Your task to perform on an android device: Clear the shopping cart on walmart. Search for logitech g910 on walmart, select the first entry, add it to the cart, then select checkout. Image 0: 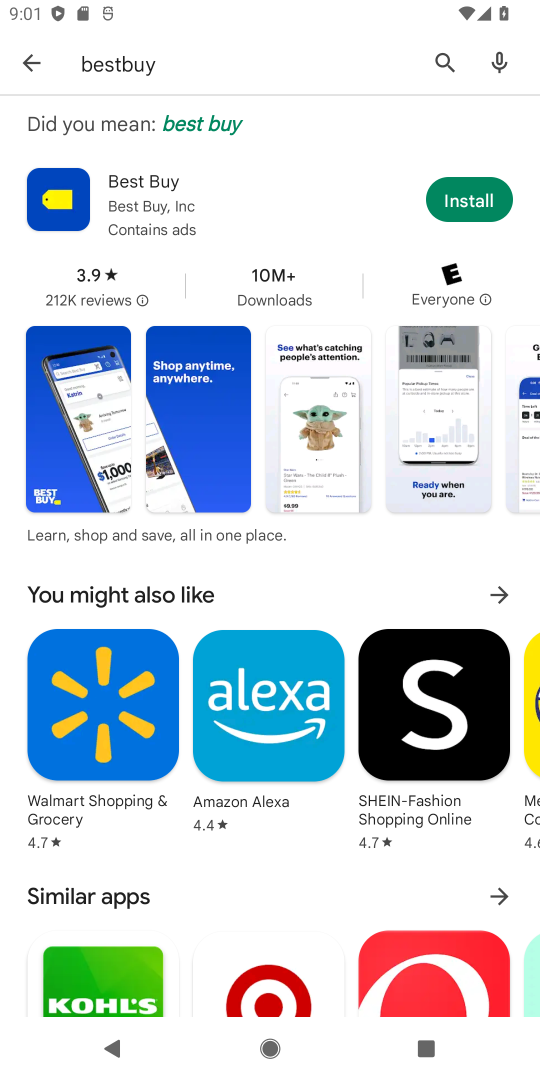
Step 0: press home button
Your task to perform on an android device: Clear the shopping cart on walmart. Search for logitech g910 on walmart, select the first entry, add it to the cart, then select checkout. Image 1: 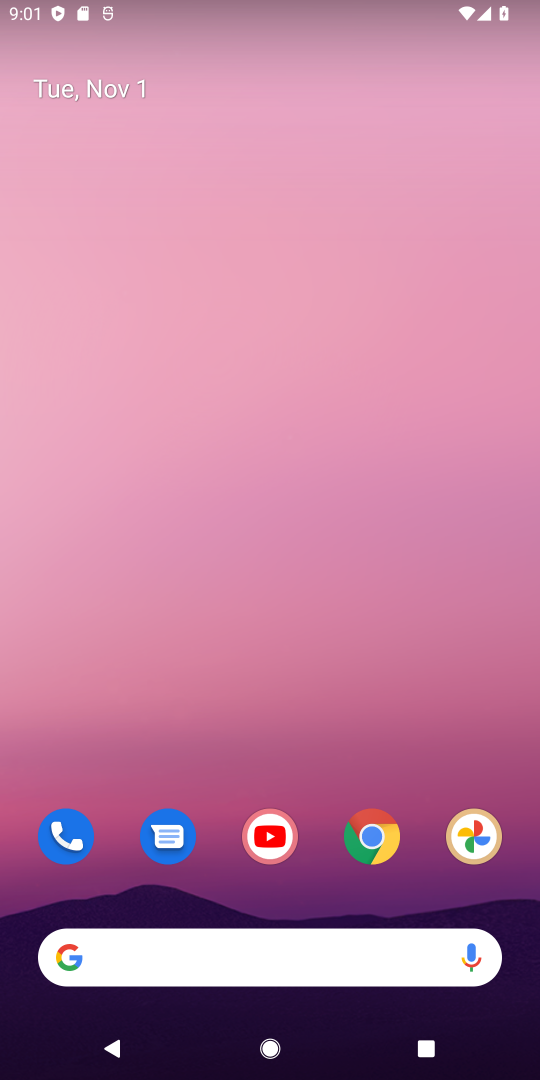
Step 1: click (376, 819)
Your task to perform on an android device: Clear the shopping cart on walmart. Search for logitech g910 on walmart, select the first entry, add it to the cart, then select checkout. Image 2: 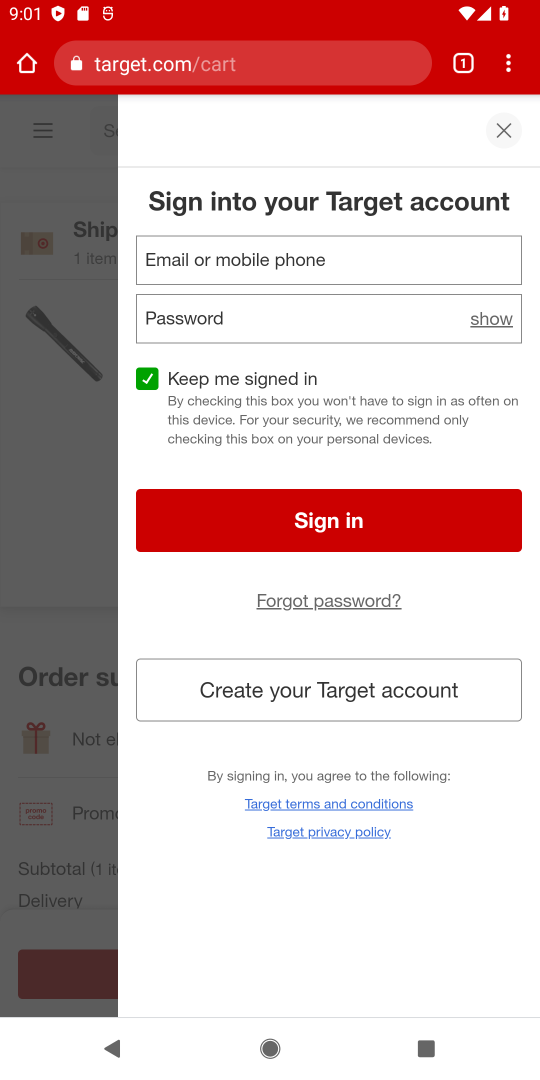
Step 2: click (228, 52)
Your task to perform on an android device: Clear the shopping cart on walmart. Search for logitech g910 on walmart, select the first entry, add it to the cart, then select checkout. Image 3: 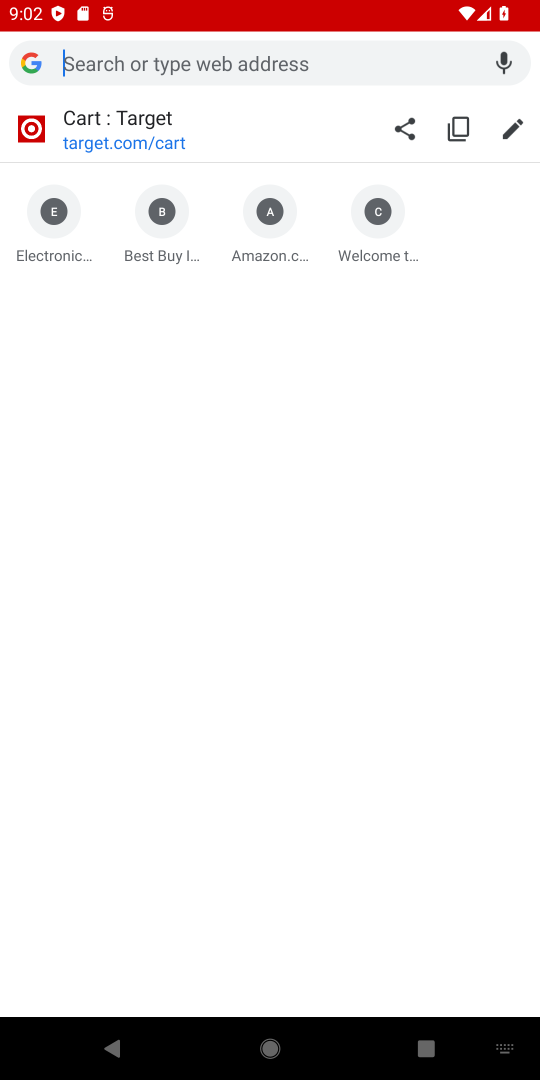
Step 3: type "walmart"
Your task to perform on an android device: Clear the shopping cart on walmart. Search for logitech g910 on walmart, select the first entry, add it to the cart, then select checkout. Image 4: 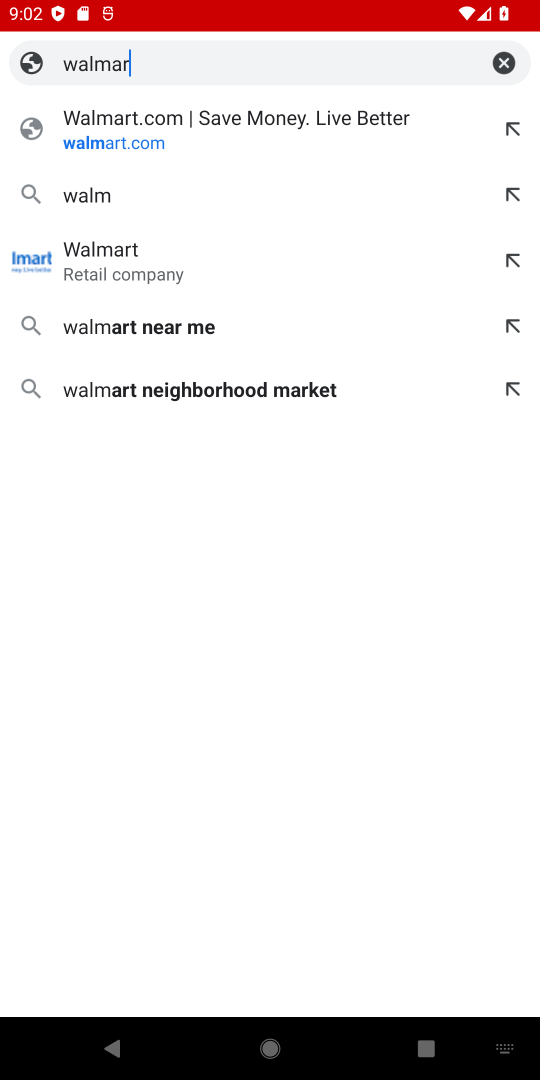
Step 4: type ""
Your task to perform on an android device: Clear the shopping cart on walmart. Search for logitech g910 on walmart, select the first entry, add it to the cart, then select checkout. Image 5: 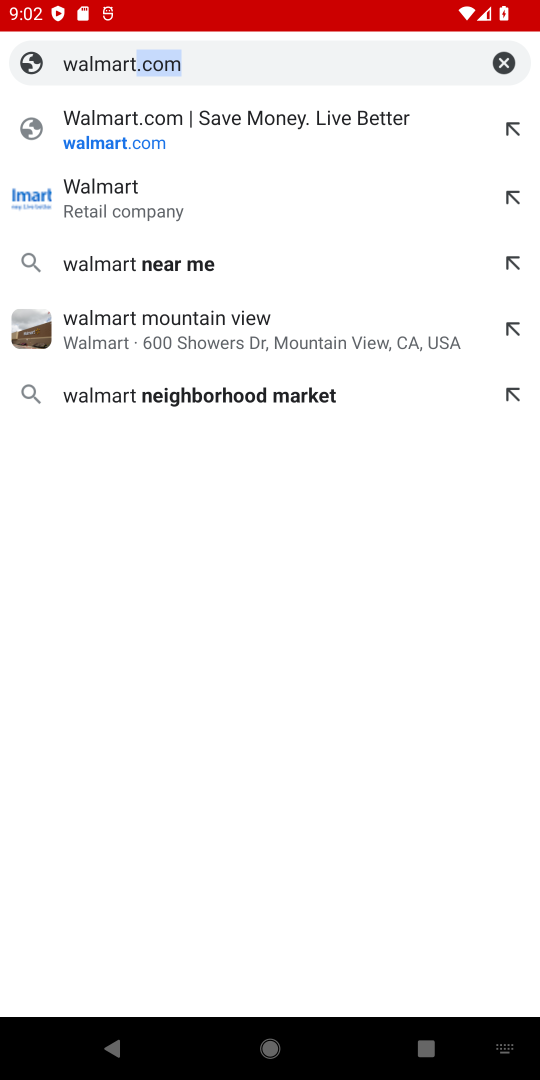
Step 5: press enter
Your task to perform on an android device: Clear the shopping cart on walmart. Search for logitech g910 on walmart, select the first entry, add it to the cart, then select checkout. Image 6: 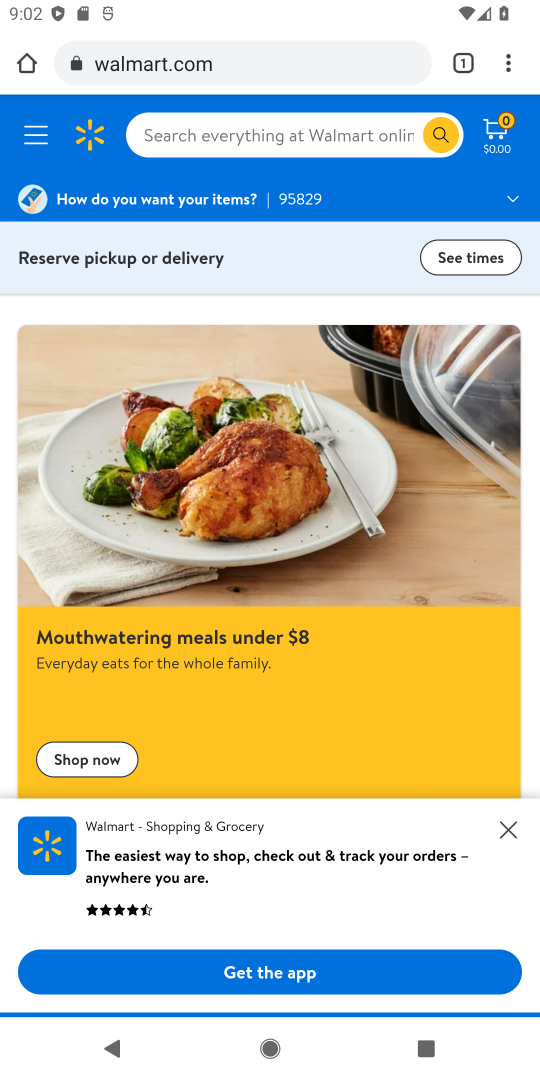
Step 6: click (223, 136)
Your task to perform on an android device: Clear the shopping cart on walmart. Search for logitech g910 on walmart, select the first entry, add it to the cart, then select checkout. Image 7: 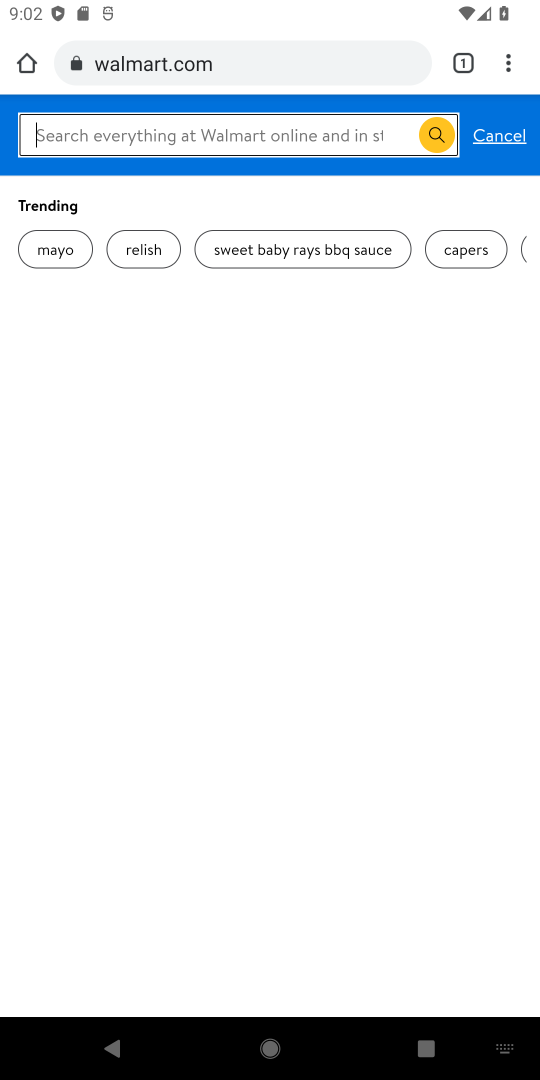
Step 7: type "ogitech g910"
Your task to perform on an android device: Clear the shopping cart on walmart. Search for logitech g910 on walmart, select the first entry, add it to the cart, then select checkout. Image 8: 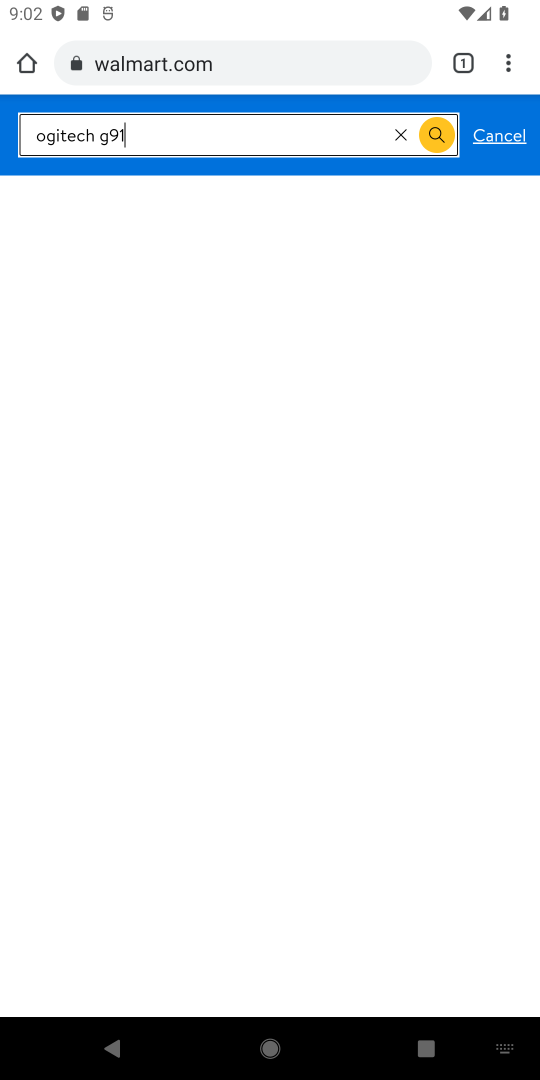
Step 8: type ""
Your task to perform on an android device: Clear the shopping cart on walmart. Search for logitech g910 on walmart, select the first entry, add it to the cart, then select checkout. Image 9: 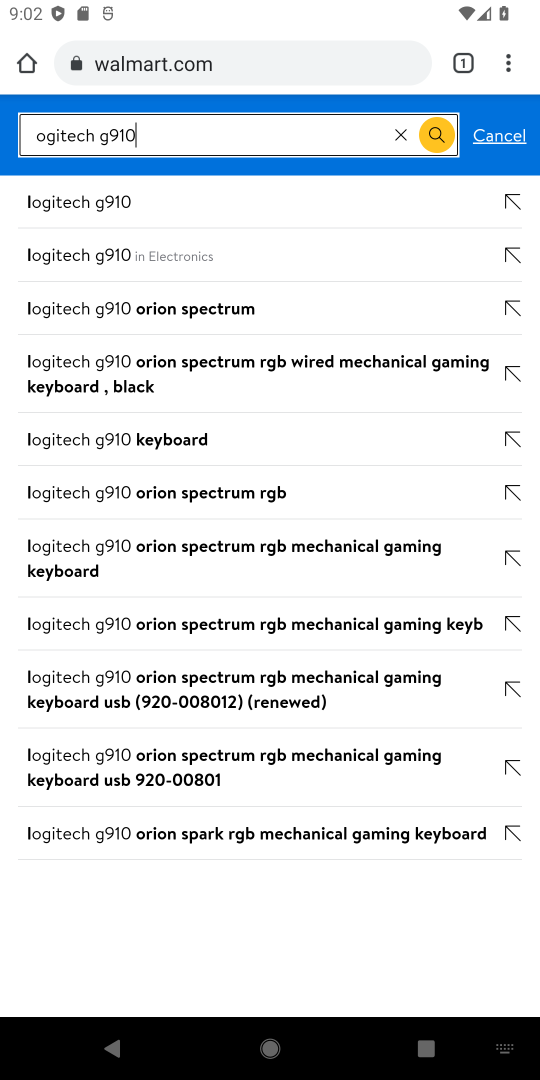
Step 9: click (96, 207)
Your task to perform on an android device: Clear the shopping cart on walmart. Search for logitech g910 on walmart, select the first entry, add it to the cart, then select checkout. Image 10: 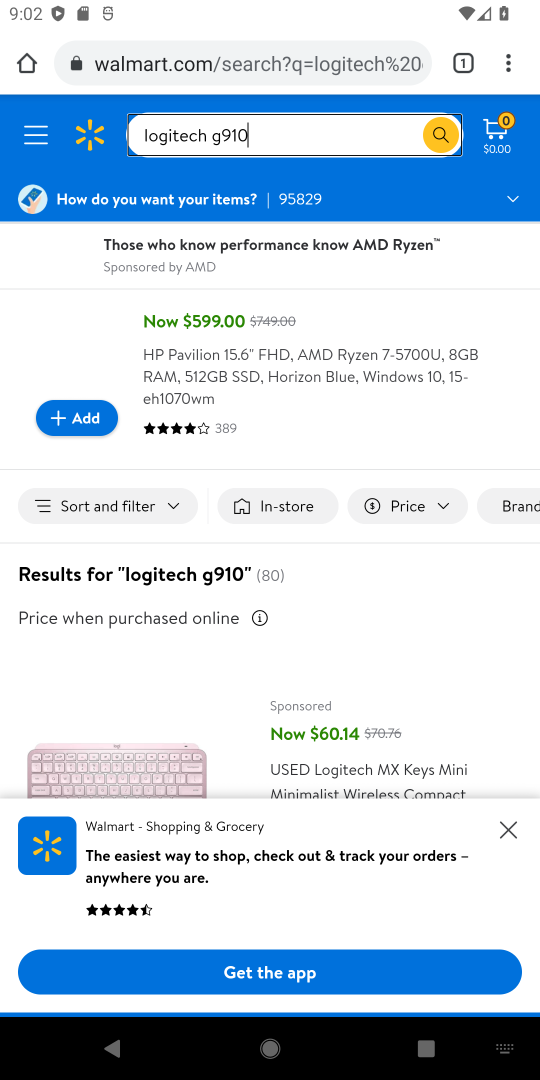
Step 10: click (511, 830)
Your task to perform on an android device: Clear the shopping cart on walmart. Search for logitech g910 on walmart, select the first entry, add it to the cart, then select checkout. Image 11: 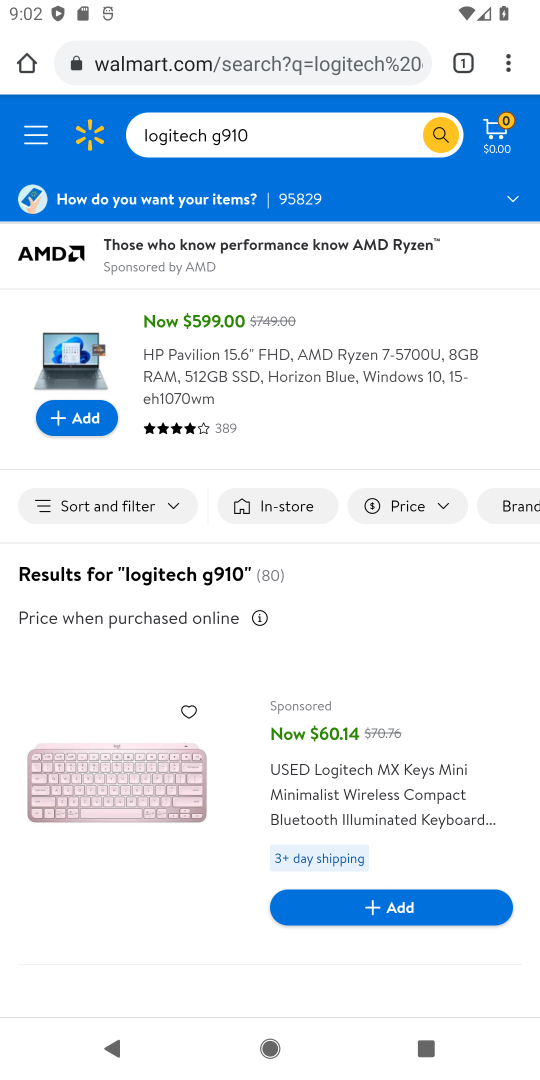
Step 11: click (418, 906)
Your task to perform on an android device: Clear the shopping cart on walmart. Search for logitech g910 on walmart, select the first entry, add it to the cart, then select checkout. Image 12: 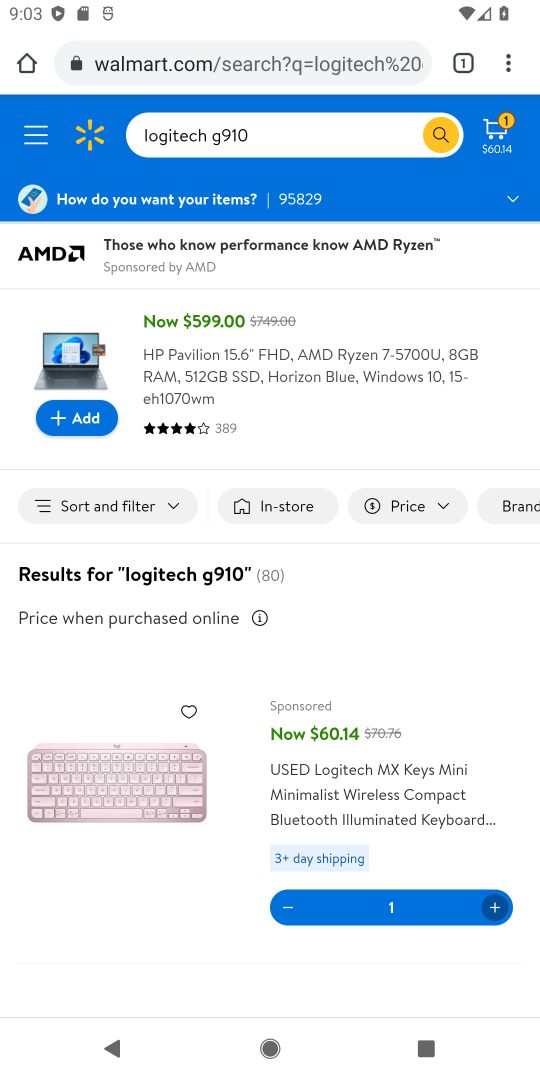
Step 12: click (507, 129)
Your task to perform on an android device: Clear the shopping cart on walmart. Search for logitech g910 on walmart, select the first entry, add it to the cart, then select checkout. Image 13: 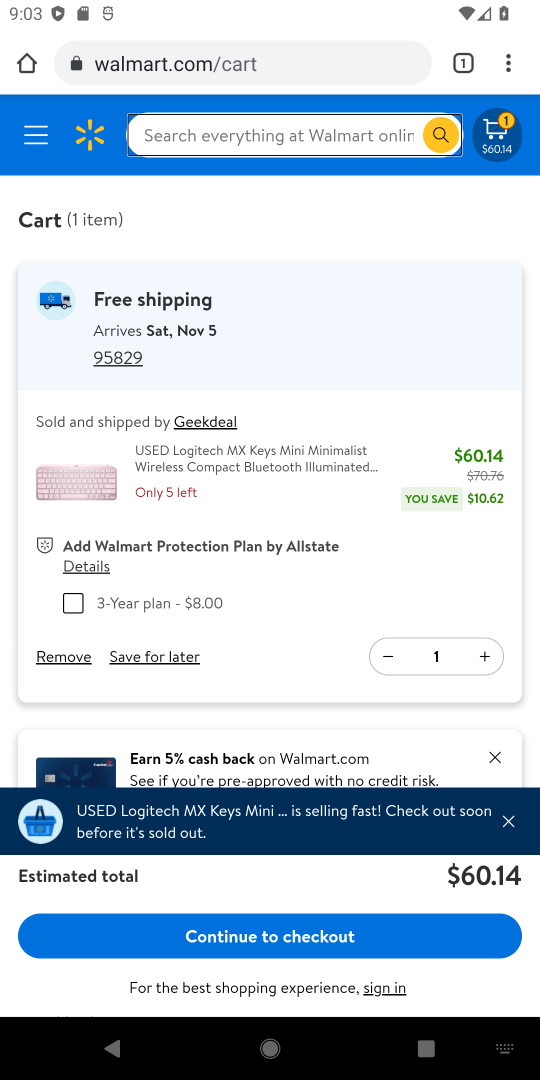
Step 13: click (519, 828)
Your task to perform on an android device: Clear the shopping cart on walmart. Search for logitech g910 on walmart, select the first entry, add it to the cart, then select checkout. Image 14: 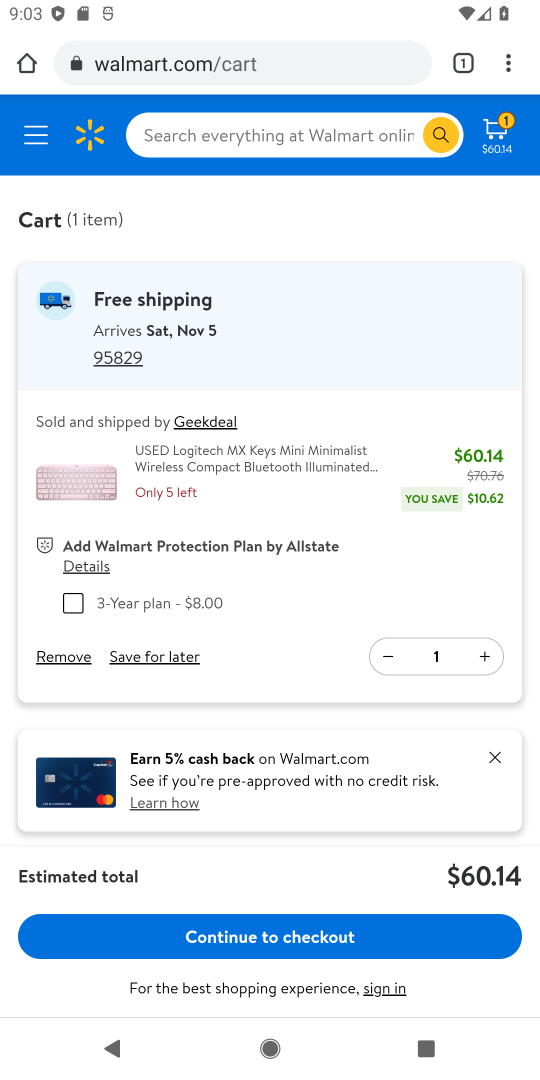
Step 14: click (492, 754)
Your task to perform on an android device: Clear the shopping cart on walmart. Search for logitech g910 on walmart, select the first entry, add it to the cart, then select checkout. Image 15: 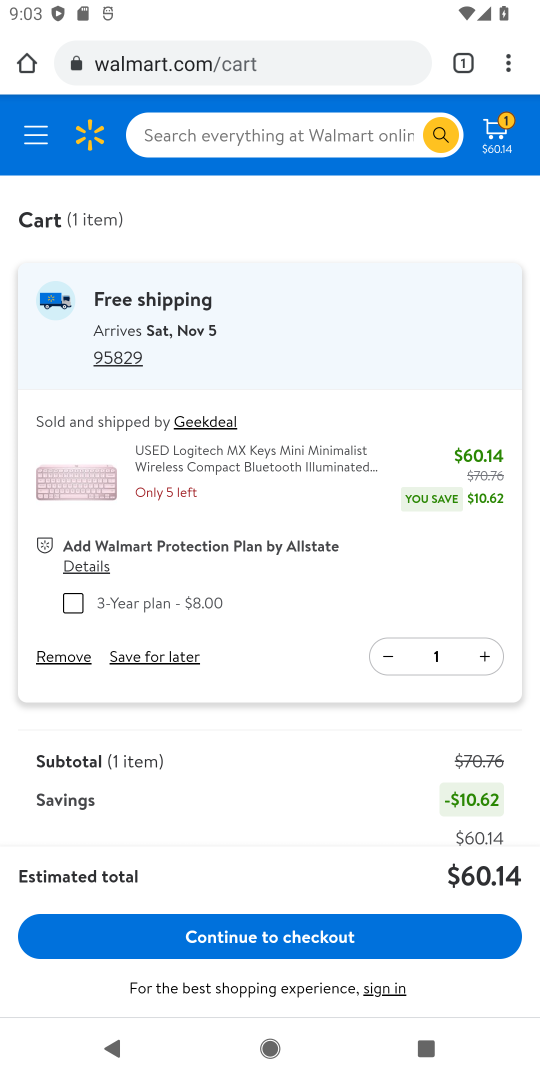
Step 15: drag from (449, 722) to (447, 402)
Your task to perform on an android device: Clear the shopping cart on walmart. Search for logitech g910 on walmart, select the first entry, add it to the cart, then select checkout. Image 16: 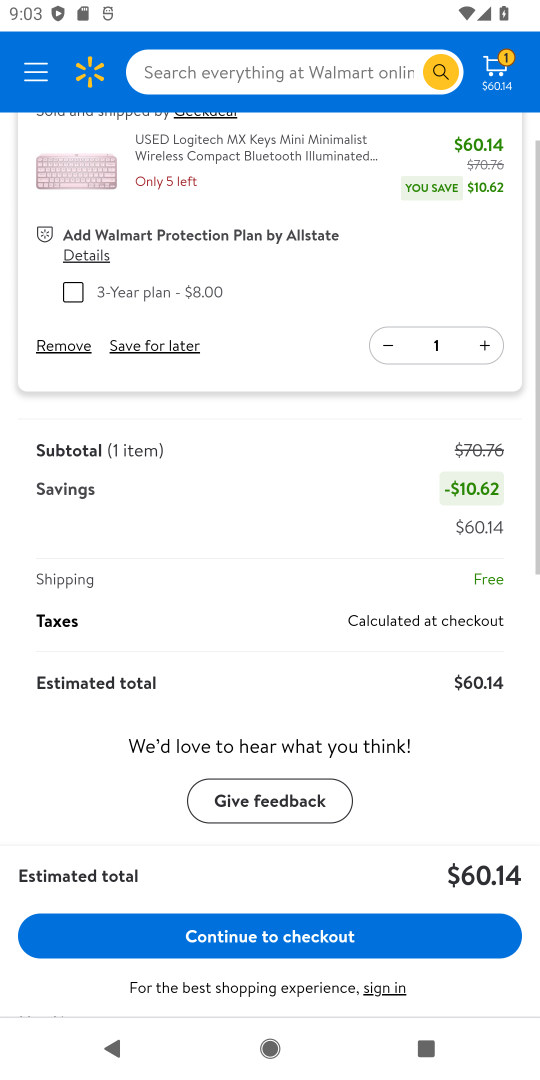
Step 16: click (228, 933)
Your task to perform on an android device: Clear the shopping cart on walmart. Search for logitech g910 on walmart, select the first entry, add it to the cart, then select checkout. Image 17: 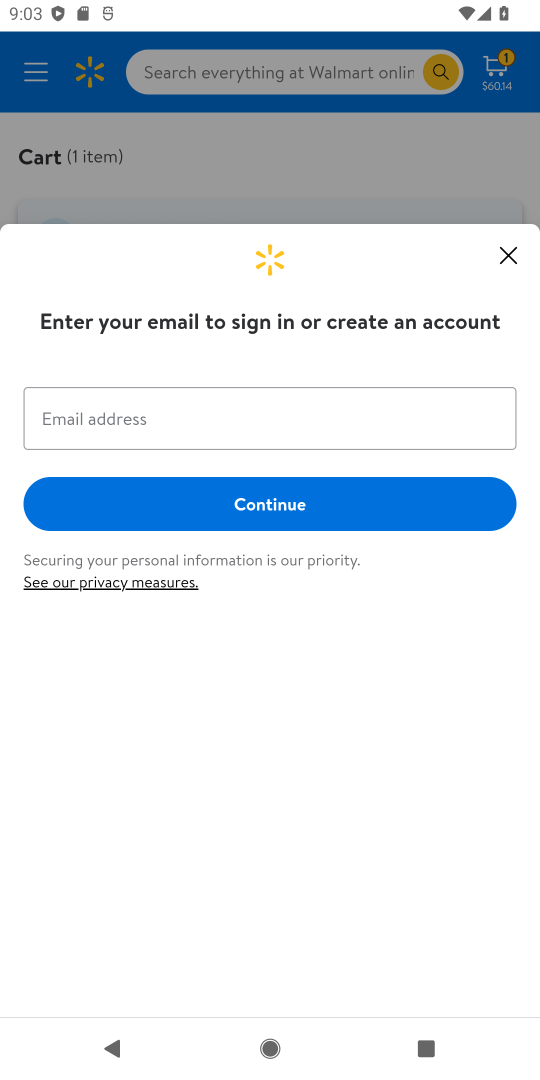
Step 17: click (517, 264)
Your task to perform on an android device: Clear the shopping cart on walmart. Search for logitech g910 on walmart, select the first entry, add it to the cart, then select checkout. Image 18: 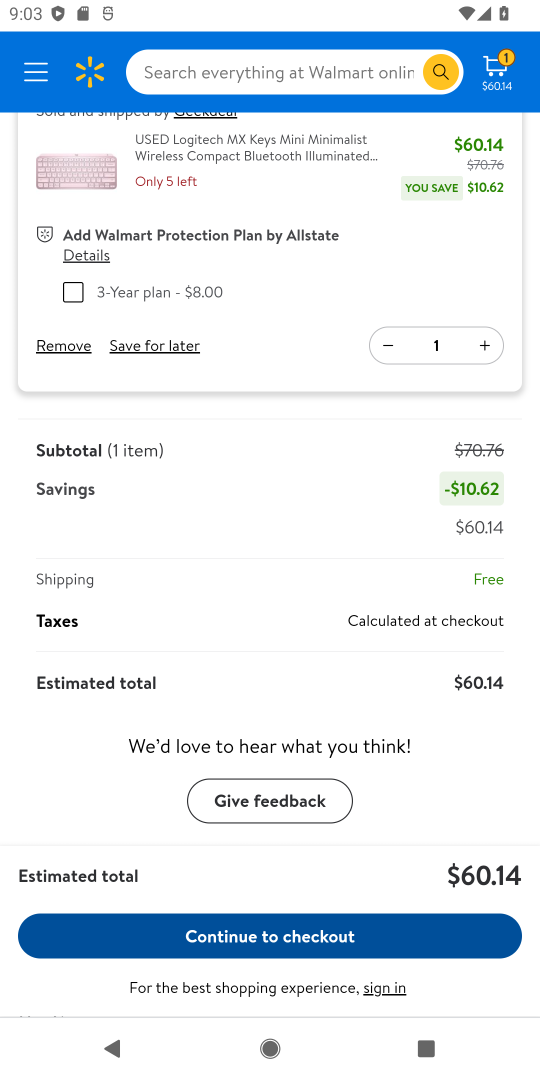
Step 18: drag from (307, 723) to (348, 344)
Your task to perform on an android device: Clear the shopping cart on walmart. Search for logitech g910 on walmart, select the first entry, add it to the cart, then select checkout. Image 19: 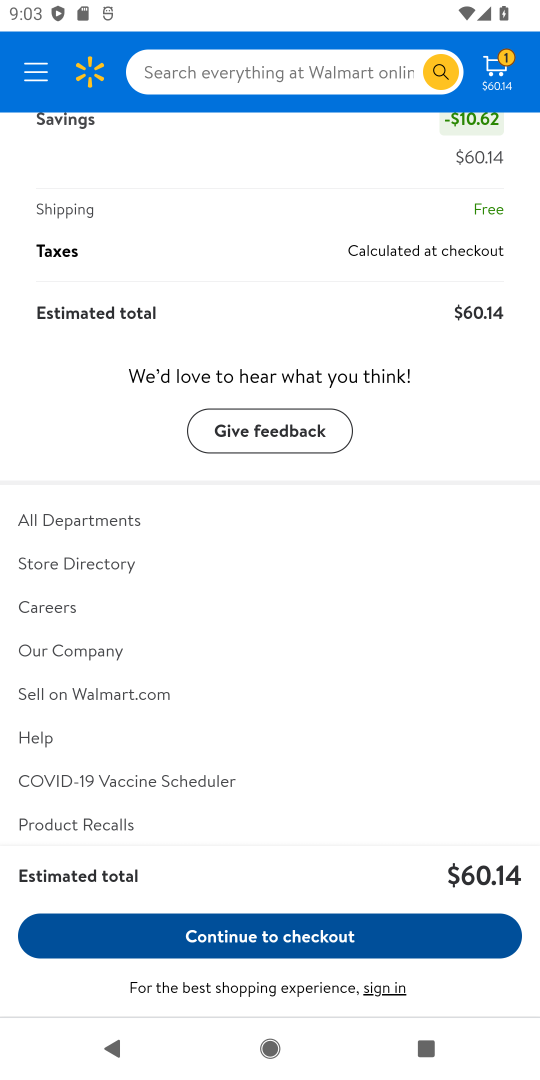
Step 19: drag from (365, 676) to (429, 327)
Your task to perform on an android device: Clear the shopping cart on walmart. Search for logitech g910 on walmart, select the first entry, add it to the cart, then select checkout. Image 20: 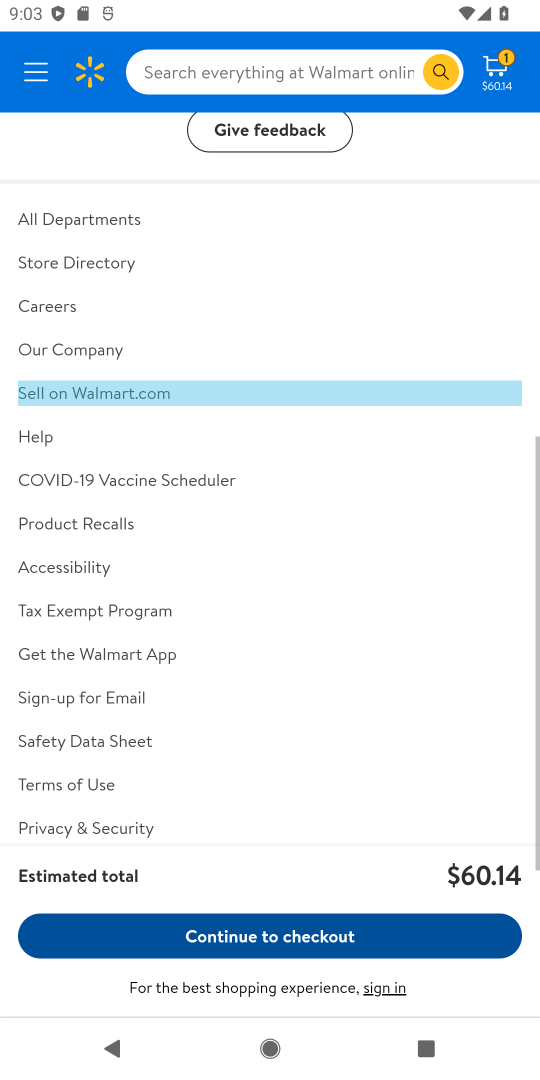
Step 20: drag from (350, 570) to (402, 303)
Your task to perform on an android device: Clear the shopping cart on walmart. Search for logitech g910 on walmart, select the first entry, add it to the cart, then select checkout. Image 21: 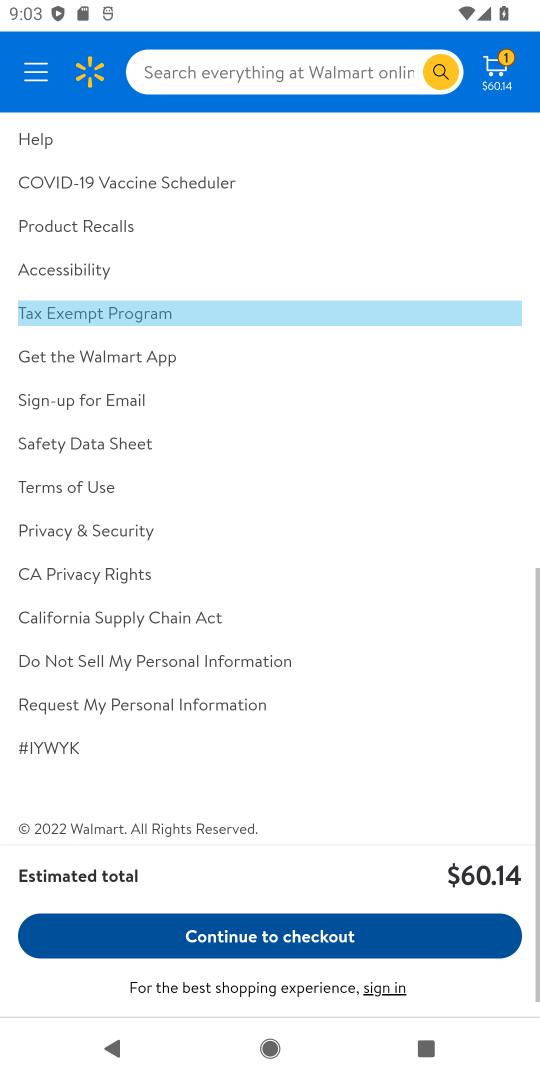
Step 21: drag from (414, 423) to (431, 298)
Your task to perform on an android device: Clear the shopping cart on walmart. Search for logitech g910 on walmart, select the first entry, add it to the cart, then select checkout. Image 22: 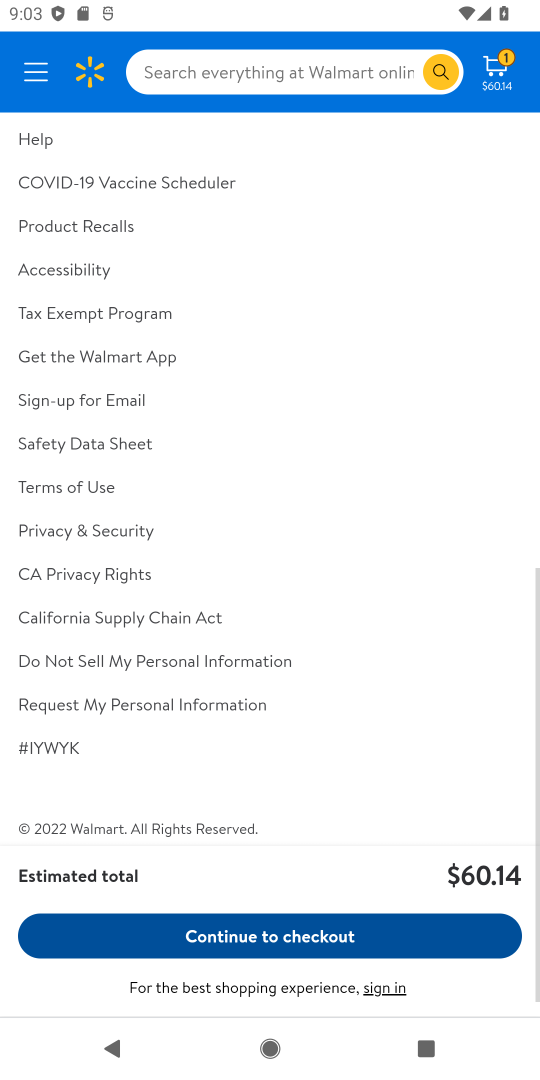
Step 22: drag from (401, 535) to (455, 354)
Your task to perform on an android device: Clear the shopping cart on walmart. Search for logitech g910 on walmart, select the first entry, add it to the cart, then select checkout. Image 23: 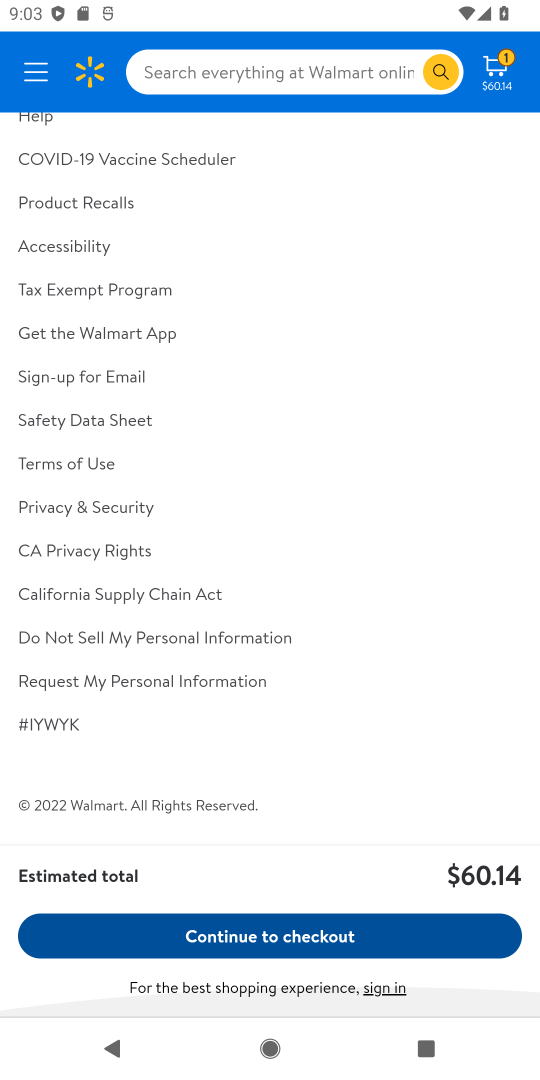
Step 23: press back button
Your task to perform on an android device: Clear the shopping cart on walmart. Search for logitech g910 on walmart, select the first entry, add it to the cart, then select checkout. Image 24: 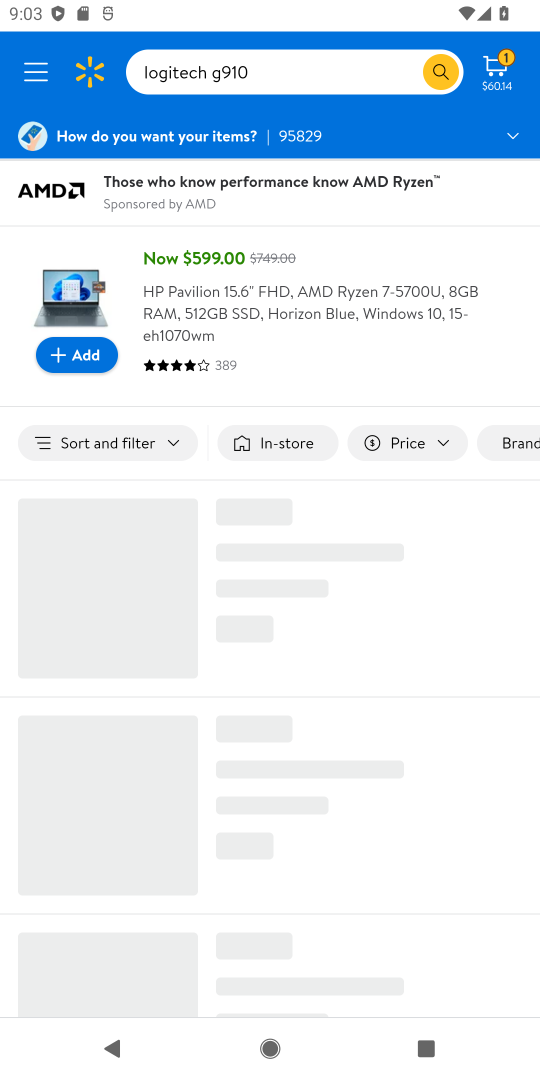
Step 24: drag from (349, 780) to (395, 530)
Your task to perform on an android device: Clear the shopping cart on walmart. Search for logitech g910 on walmart, select the first entry, add it to the cart, then select checkout. Image 25: 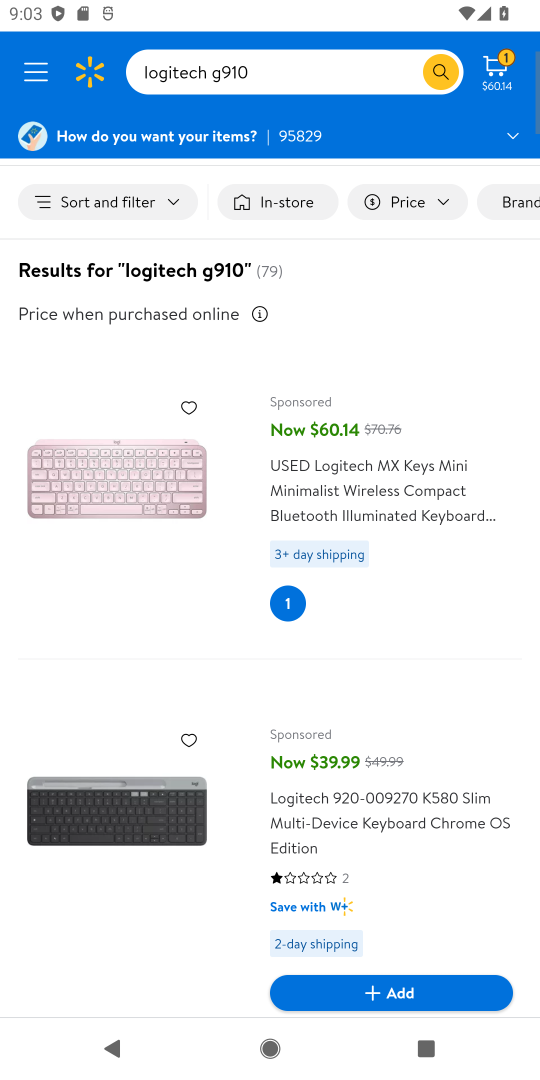
Step 25: press back button
Your task to perform on an android device: Clear the shopping cart on walmart. Search for logitech g910 on walmart, select the first entry, add it to the cart, then select checkout. Image 26: 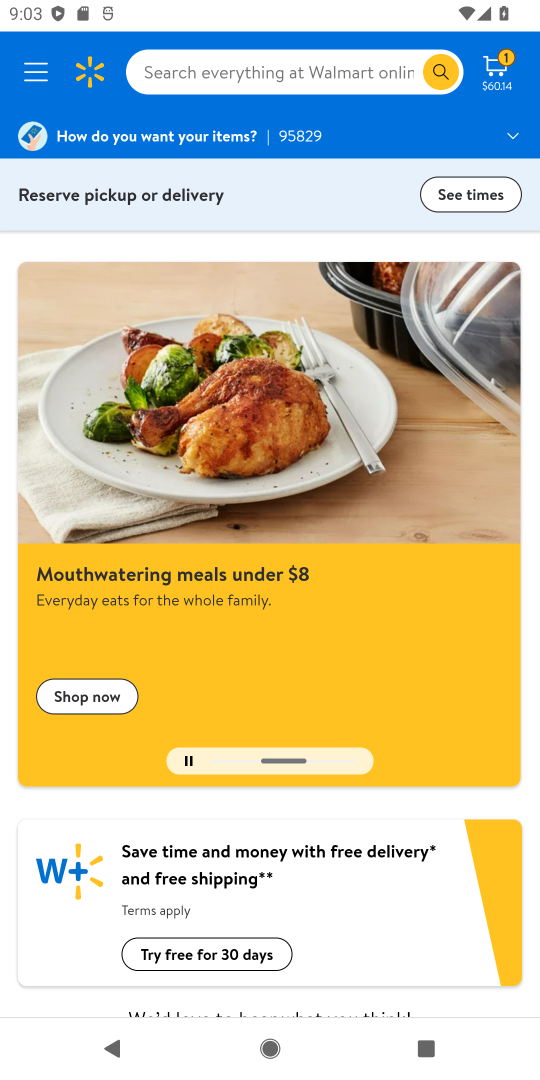
Step 26: click (480, 59)
Your task to perform on an android device: Clear the shopping cart on walmart. Search for logitech g910 on walmart, select the first entry, add it to the cart, then select checkout. Image 27: 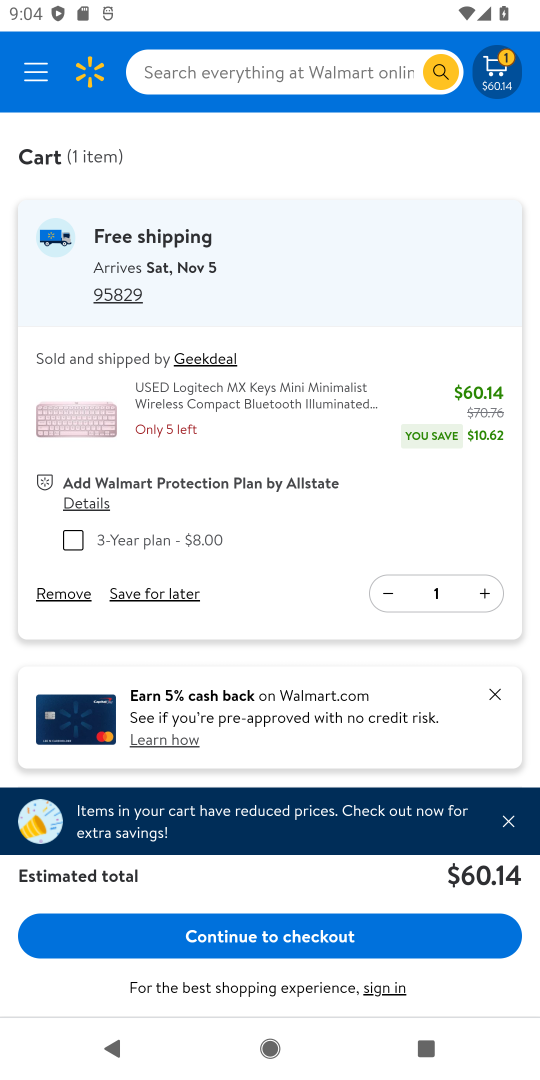
Step 27: click (358, 934)
Your task to perform on an android device: Clear the shopping cart on walmart. Search for logitech g910 on walmart, select the first entry, add it to the cart, then select checkout. Image 28: 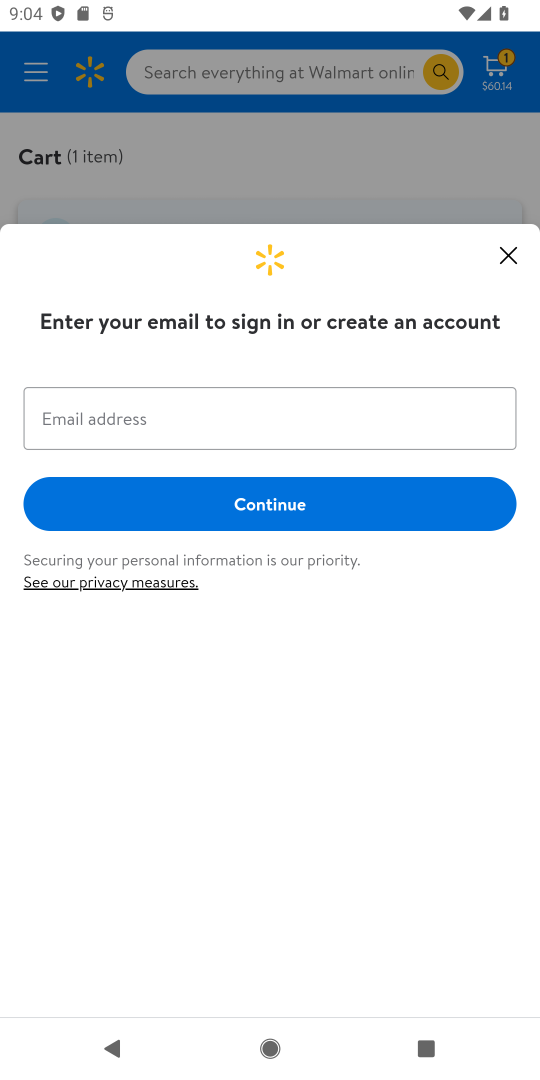
Step 28: click (511, 251)
Your task to perform on an android device: Clear the shopping cart on walmart. Search for logitech g910 on walmart, select the first entry, add it to the cart, then select checkout. Image 29: 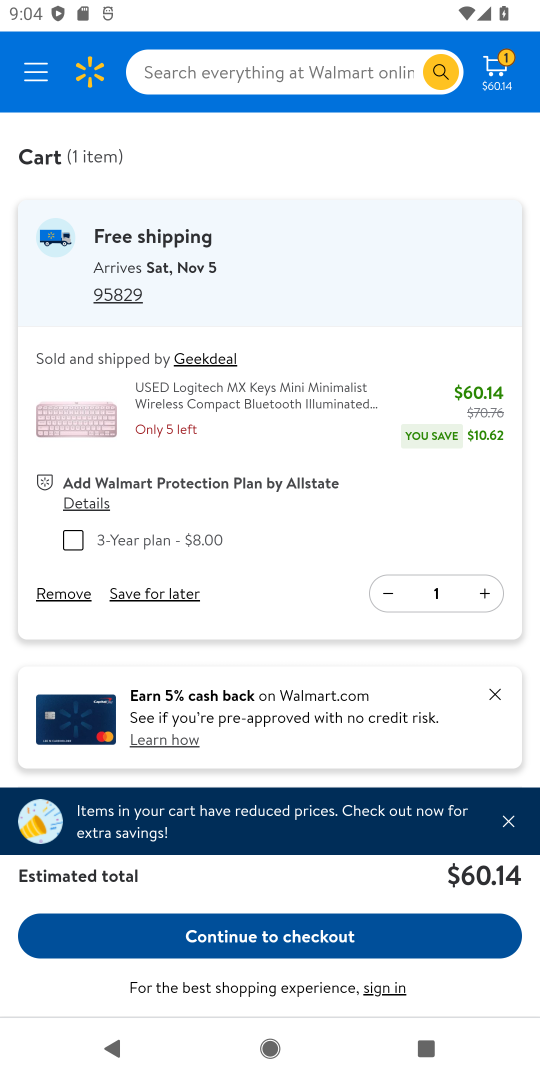
Step 29: click (304, 933)
Your task to perform on an android device: Clear the shopping cart on walmart. Search for logitech g910 on walmart, select the first entry, add it to the cart, then select checkout. Image 30: 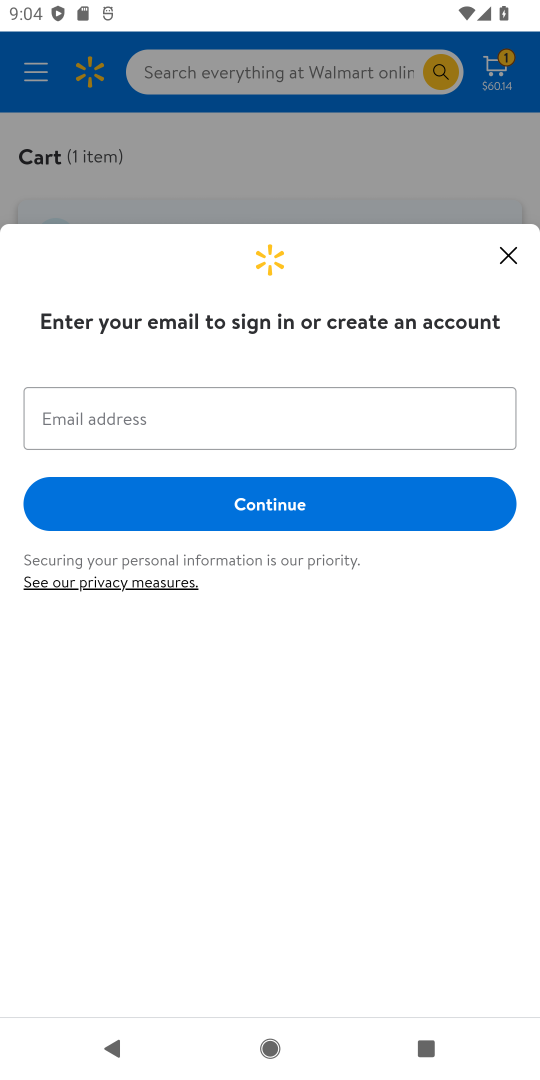
Step 30: click (517, 261)
Your task to perform on an android device: Clear the shopping cart on walmart. Search for logitech g910 on walmart, select the first entry, add it to the cart, then select checkout. Image 31: 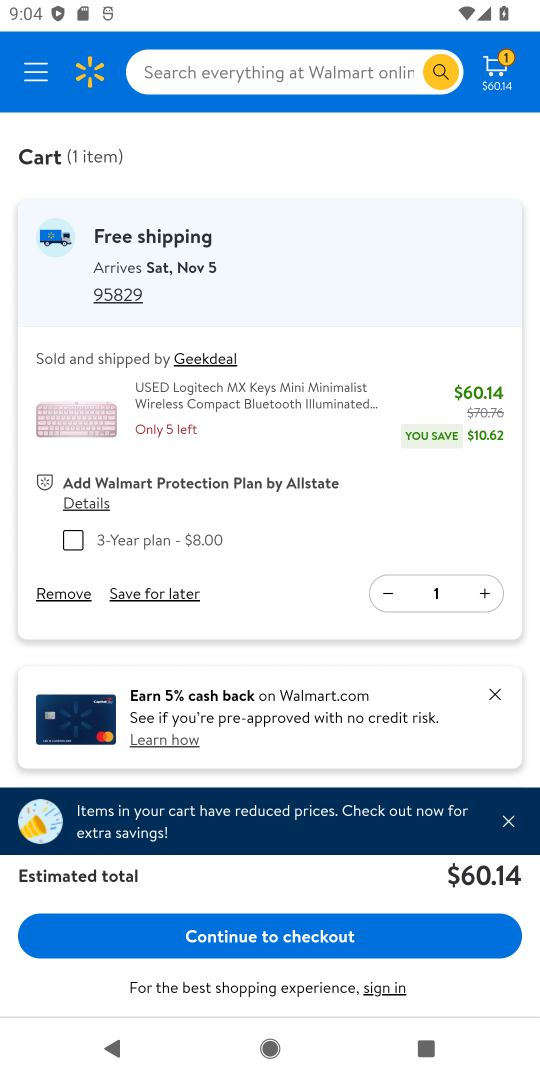
Step 31: task complete